Your task to perform on an android device: Open the Play Movies app and select the watchlist tab. Image 0: 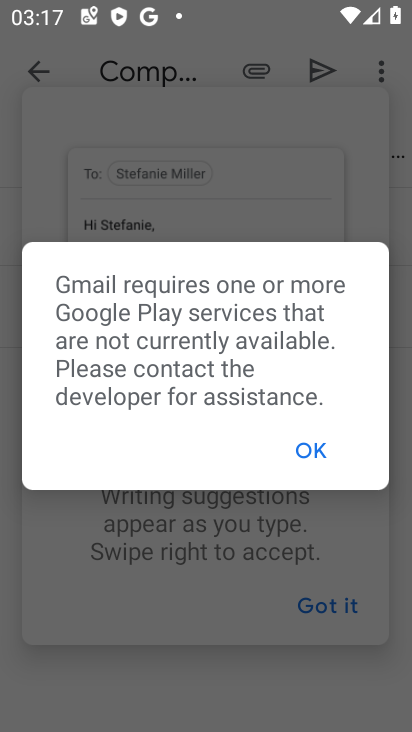
Step 0: press home button
Your task to perform on an android device: Open the Play Movies app and select the watchlist tab. Image 1: 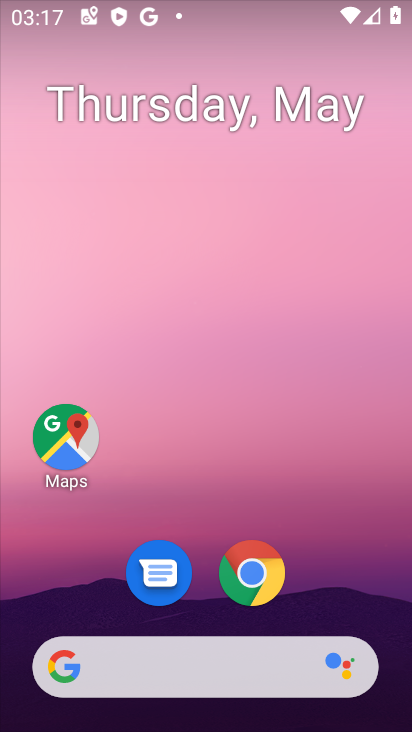
Step 1: drag from (317, 600) to (316, 303)
Your task to perform on an android device: Open the Play Movies app and select the watchlist tab. Image 2: 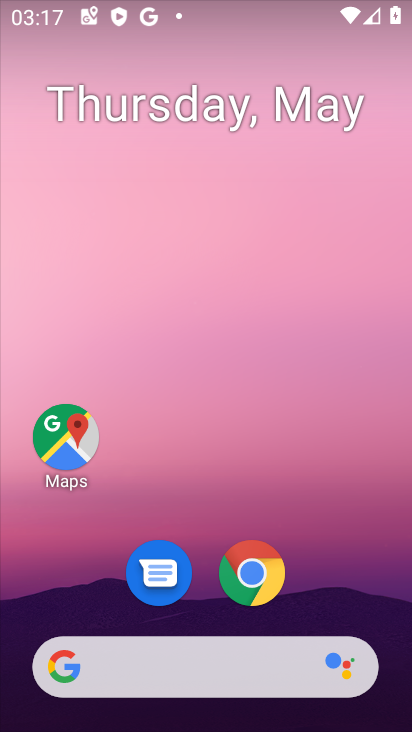
Step 2: drag from (301, 574) to (283, 210)
Your task to perform on an android device: Open the Play Movies app and select the watchlist tab. Image 3: 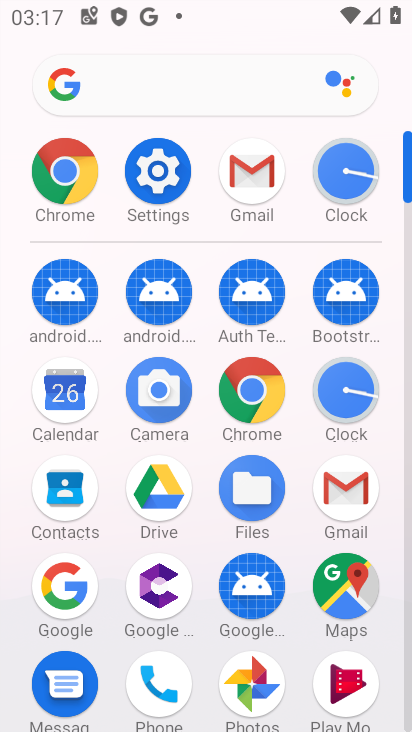
Step 3: click (352, 672)
Your task to perform on an android device: Open the Play Movies app and select the watchlist tab. Image 4: 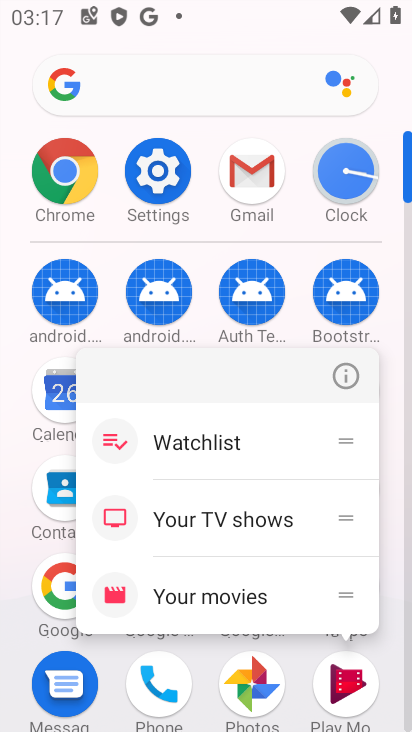
Step 4: click (339, 671)
Your task to perform on an android device: Open the Play Movies app and select the watchlist tab. Image 5: 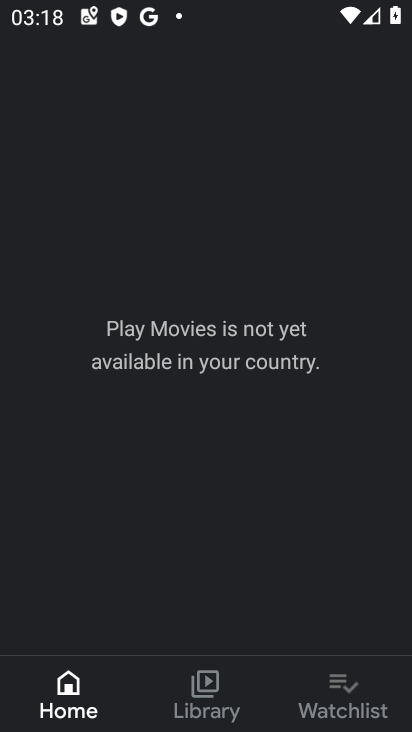
Step 5: click (343, 693)
Your task to perform on an android device: Open the Play Movies app and select the watchlist tab. Image 6: 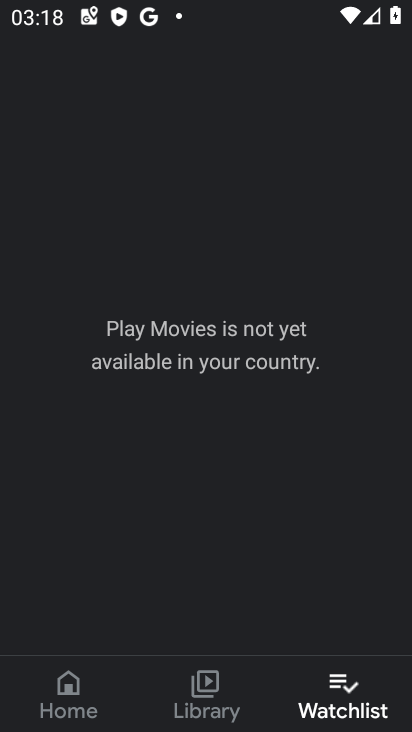
Step 6: task complete